Your task to perform on an android device: Go to Yahoo.com Image 0: 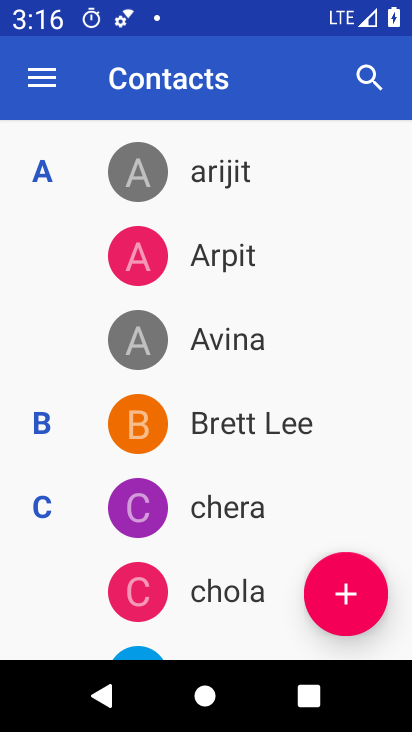
Step 0: press home button
Your task to perform on an android device: Go to Yahoo.com Image 1: 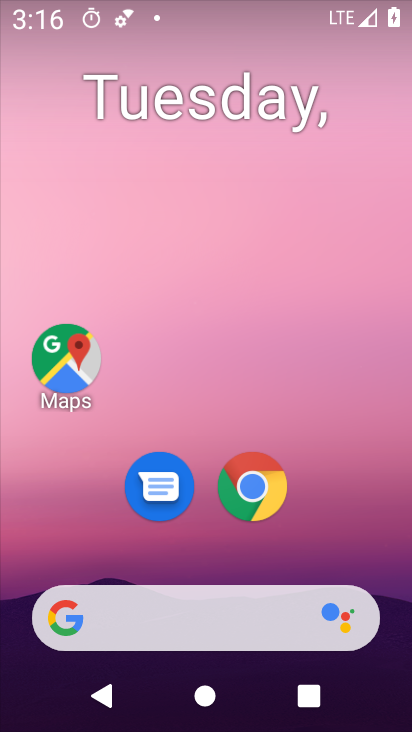
Step 1: drag from (367, 545) to (339, 133)
Your task to perform on an android device: Go to Yahoo.com Image 2: 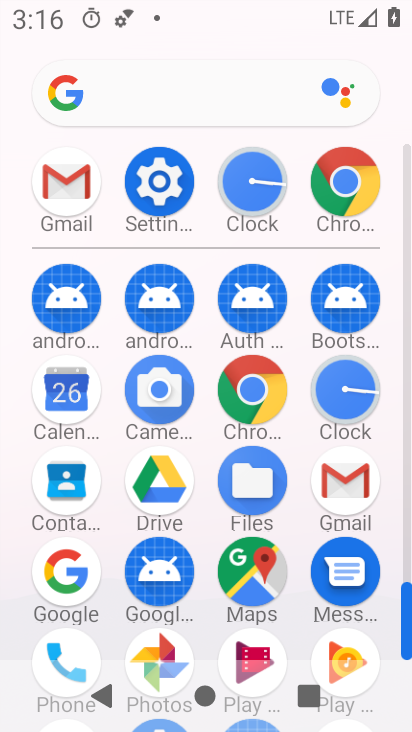
Step 2: click (240, 394)
Your task to perform on an android device: Go to Yahoo.com Image 3: 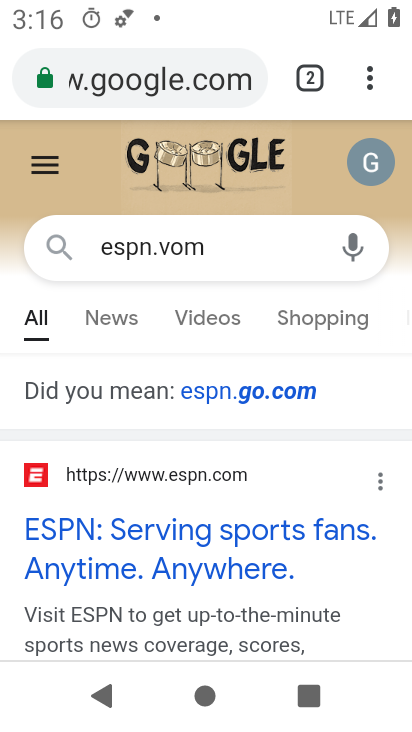
Step 3: click (236, 85)
Your task to perform on an android device: Go to Yahoo.com Image 4: 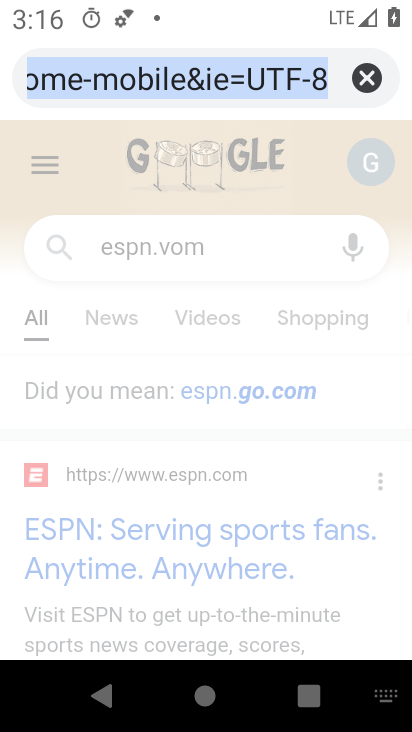
Step 4: type "yahoo.com"
Your task to perform on an android device: Go to Yahoo.com Image 5: 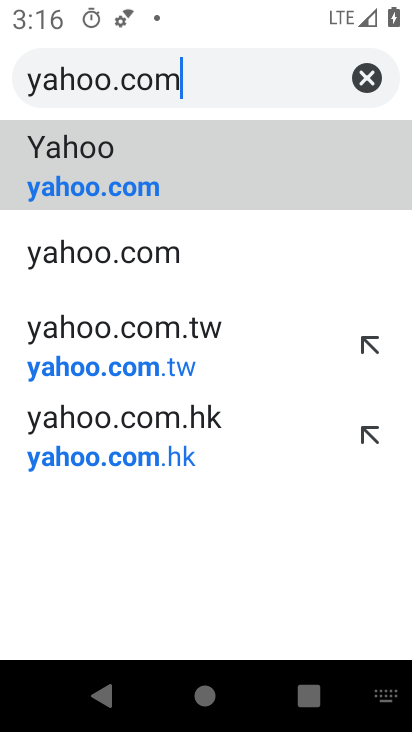
Step 5: click (202, 163)
Your task to perform on an android device: Go to Yahoo.com Image 6: 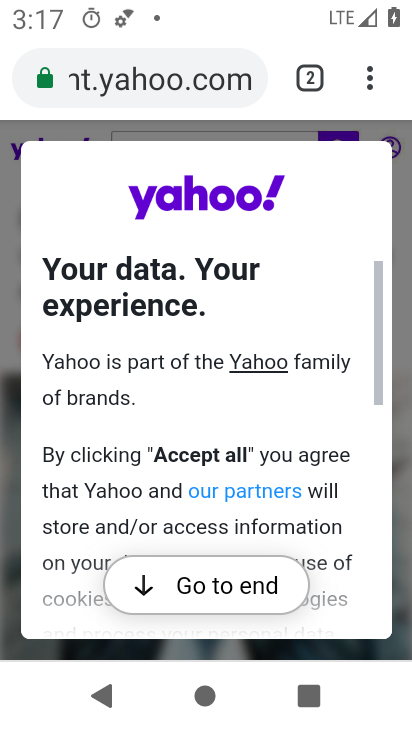
Step 6: task complete